Your task to perform on an android device: Show me the alarms in the clock app Image 0: 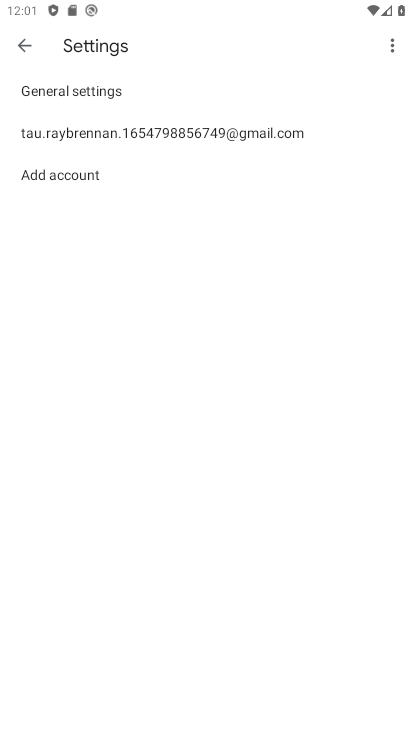
Step 0: press home button
Your task to perform on an android device: Show me the alarms in the clock app Image 1: 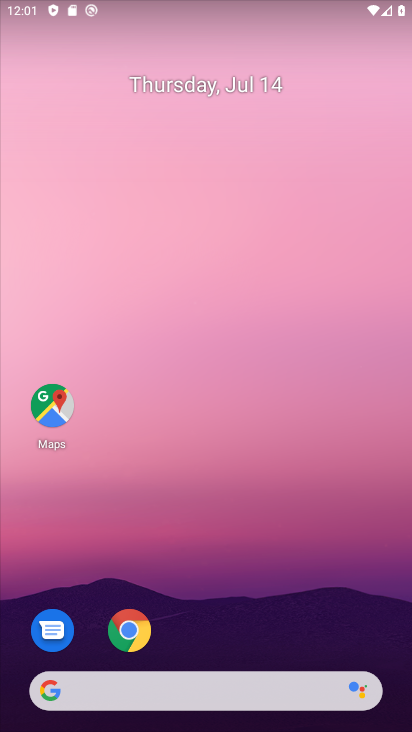
Step 1: drag from (270, 637) to (267, 108)
Your task to perform on an android device: Show me the alarms in the clock app Image 2: 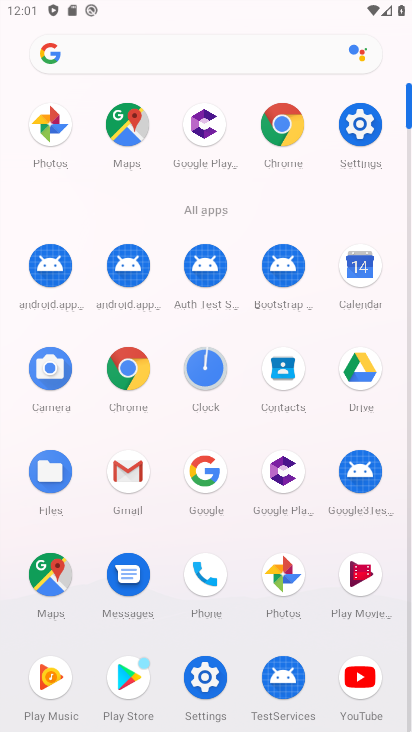
Step 2: click (215, 361)
Your task to perform on an android device: Show me the alarms in the clock app Image 3: 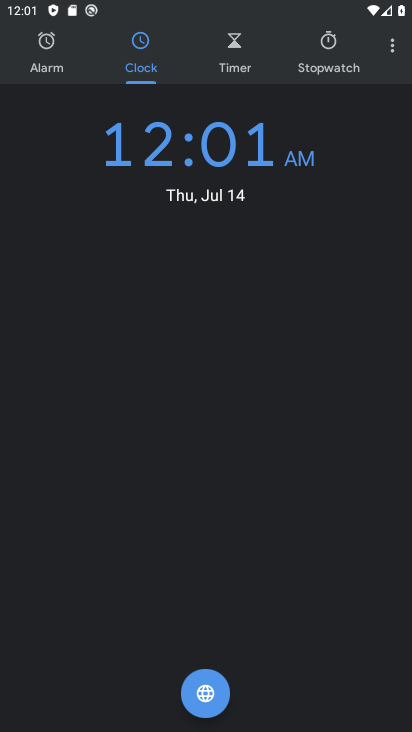
Step 3: click (32, 59)
Your task to perform on an android device: Show me the alarms in the clock app Image 4: 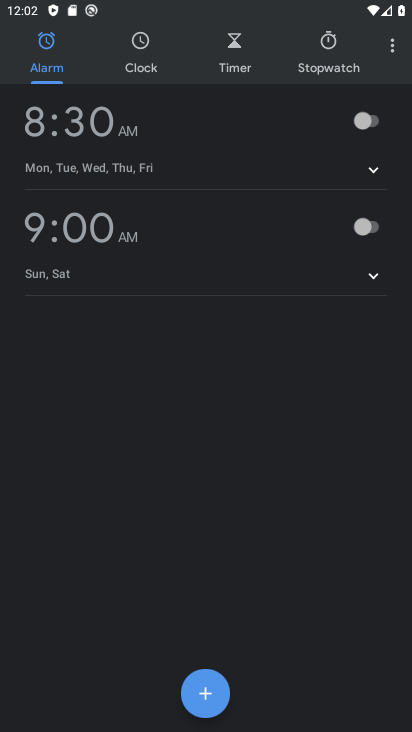
Step 4: task complete